Your task to perform on an android device: turn off wifi Image 0: 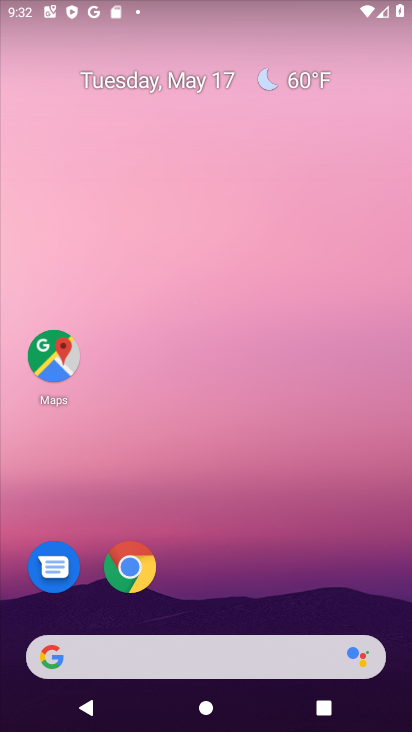
Step 0: drag from (399, 609) to (279, 3)
Your task to perform on an android device: turn off wifi Image 1: 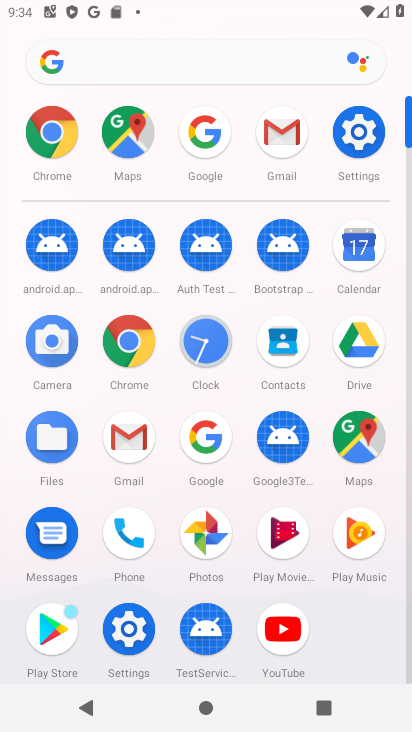
Step 1: drag from (193, 1) to (195, 478)
Your task to perform on an android device: turn off wifi Image 2: 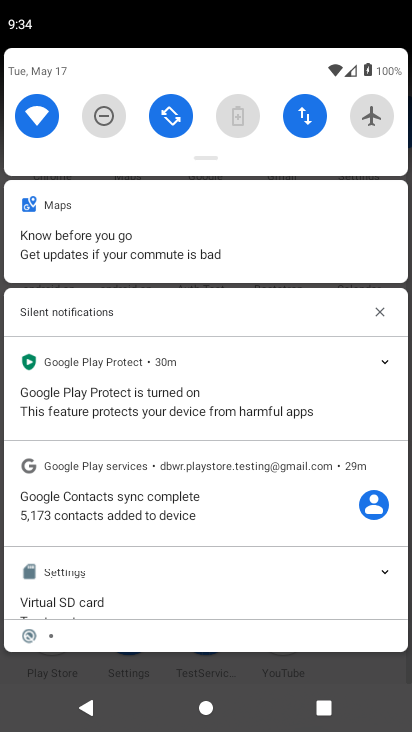
Step 2: click (38, 107)
Your task to perform on an android device: turn off wifi Image 3: 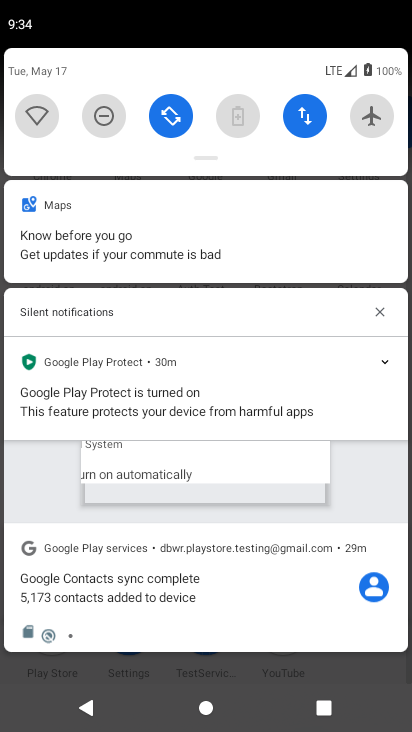
Step 3: task complete